Your task to perform on an android device: read, delete, or share a saved page in the chrome app Image 0: 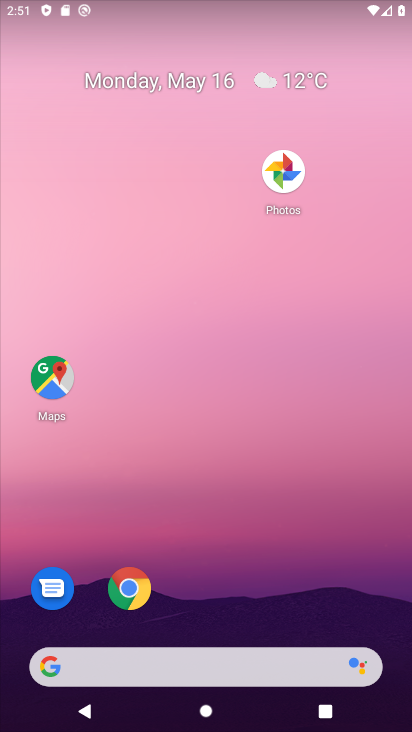
Step 0: click (128, 588)
Your task to perform on an android device: read, delete, or share a saved page in the chrome app Image 1: 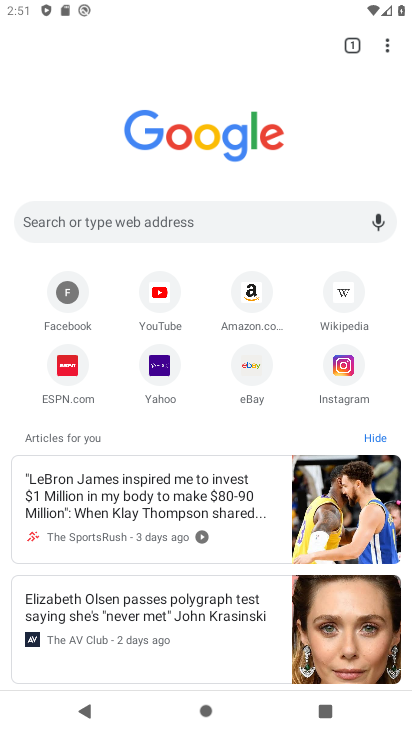
Step 1: click (391, 43)
Your task to perform on an android device: read, delete, or share a saved page in the chrome app Image 2: 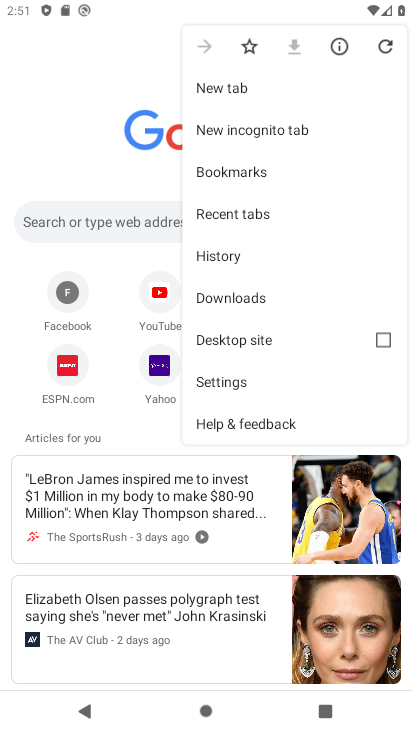
Step 2: click (248, 294)
Your task to perform on an android device: read, delete, or share a saved page in the chrome app Image 3: 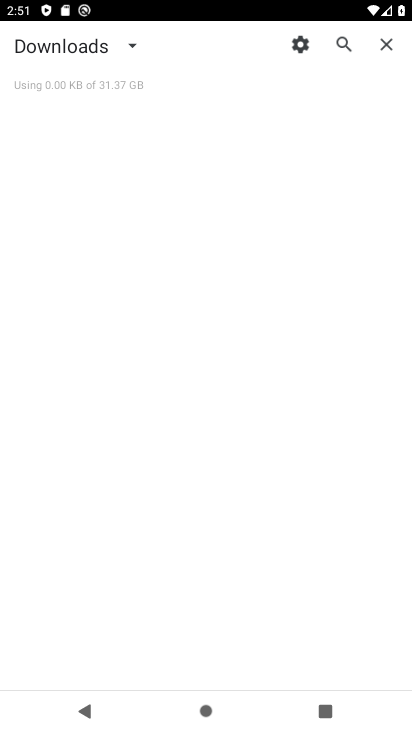
Step 3: task complete